Your task to perform on an android device: turn vacation reply on in the gmail app Image 0: 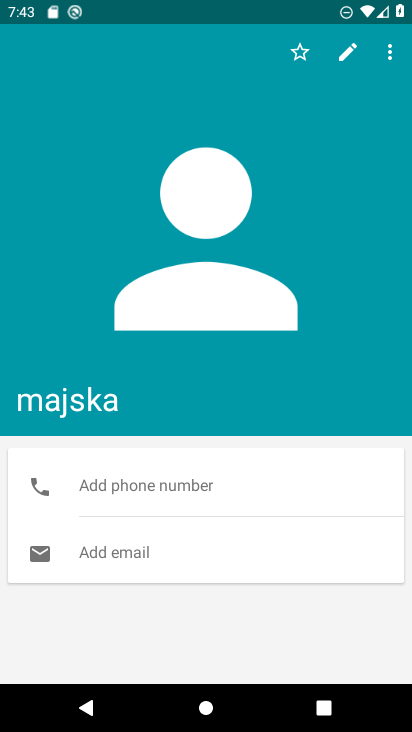
Step 0: drag from (154, 602) to (275, 222)
Your task to perform on an android device: turn vacation reply on in the gmail app Image 1: 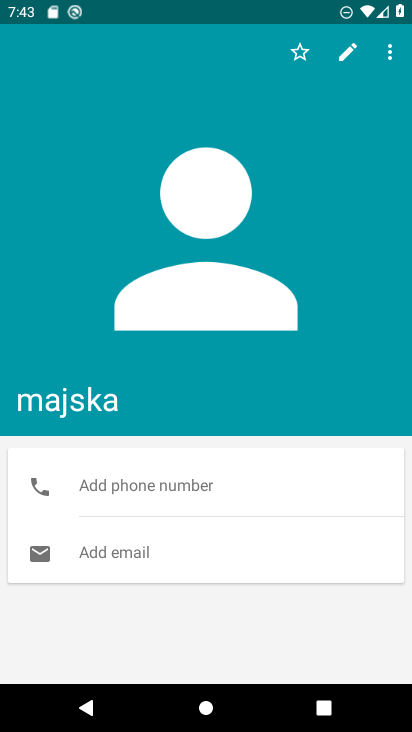
Step 1: press home button
Your task to perform on an android device: turn vacation reply on in the gmail app Image 2: 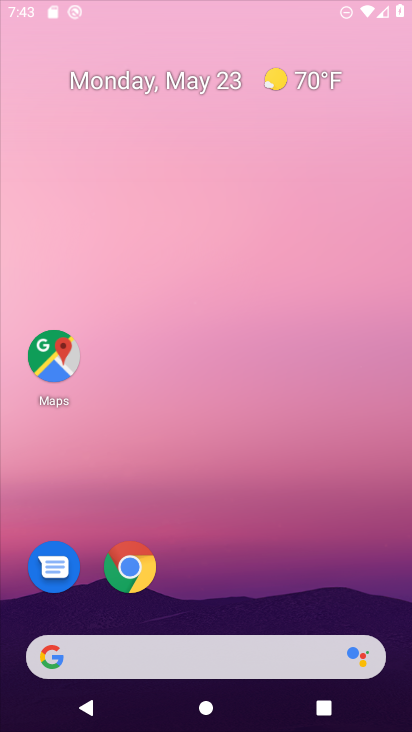
Step 2: drag from (181, 608) to (345, 0)
Your task to perform on an android device: turn vacation reply on in the gmail app Image 3: 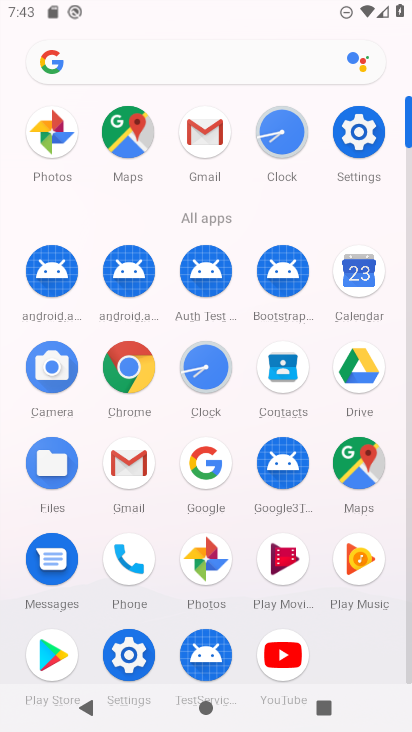
Step 3: click (122, 474)
Your task to perform on an android device: turn vacation reply on in the gmail app Image 4: 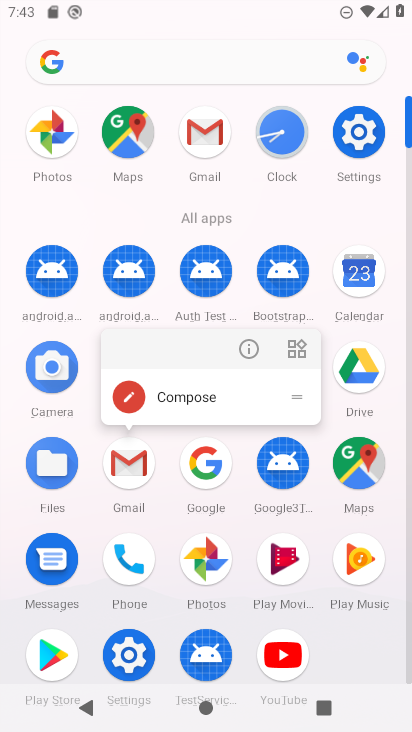
Step 4: click (244, 338)
Your task to perform on an android device: turn vacation reply on in the gmail app Image 5: 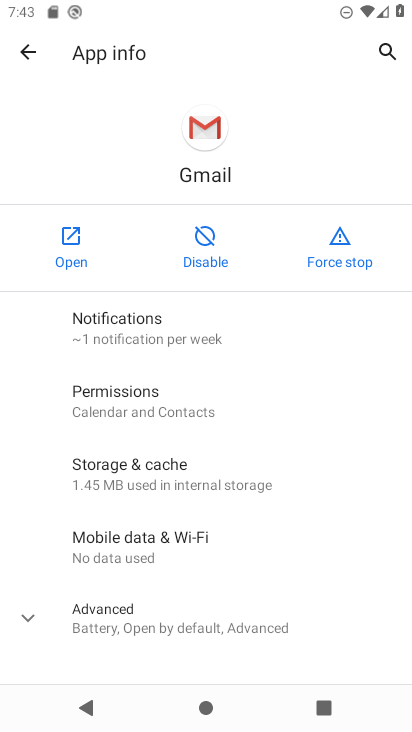
Step 5: click (62, 268)
Your task to perform on an android device: turn vacation reply on in the gmail app Image 6: 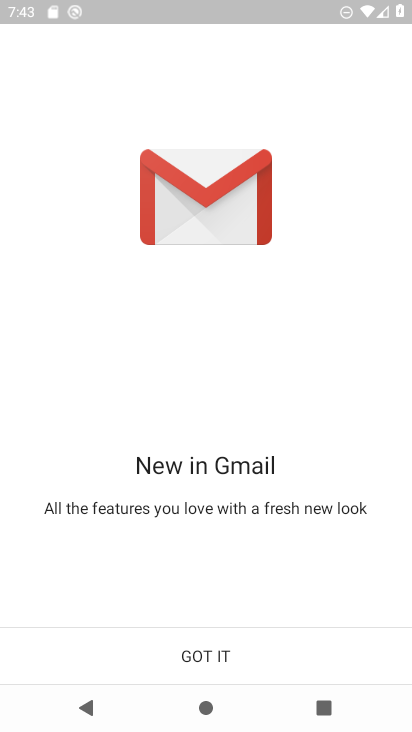
Step 6: click (192, 686)
Your task to perform on an android device: turn vacation reply on in the gmail app Image 7: 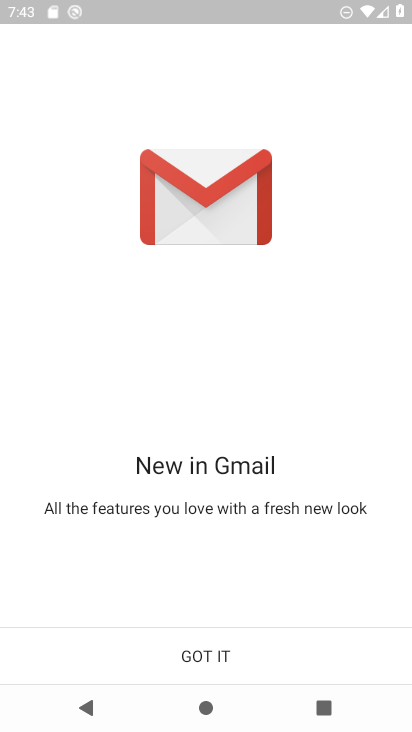
Step 7: click (215, 651)
Your task to perform on an android device: turn vacation reply on in the gmail app Image 8: 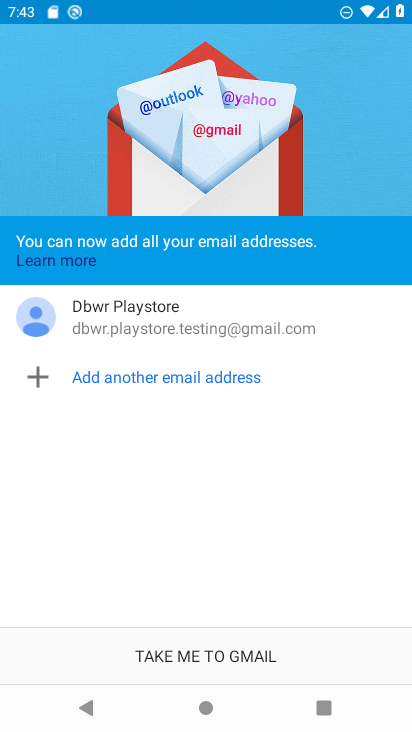
Step 8: click (159, 645)
Your task to perform on an android device: turn vacation reply on in the gmail app Image 9: 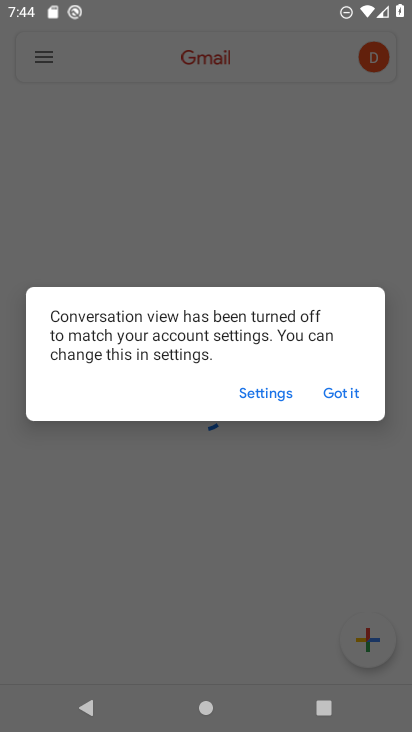
Step 9: click (344, 393)
Your task to perform on an android device: turn vacation reply on in the gmail app Image 10: 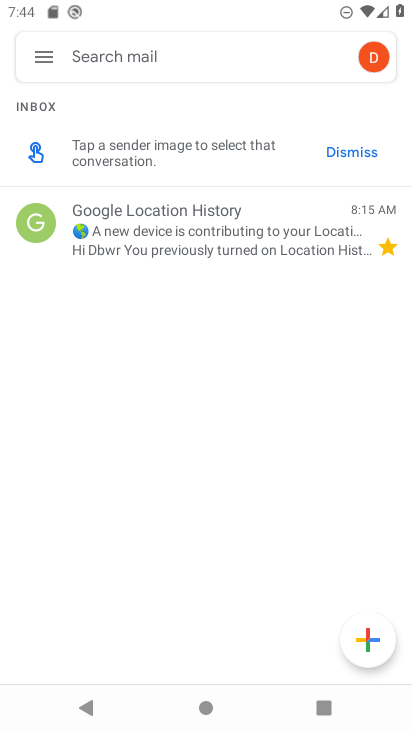
Step 10: click (44, 63)
Your task to perform on an android device: turn vacation reply on in the gmail app Image 11: 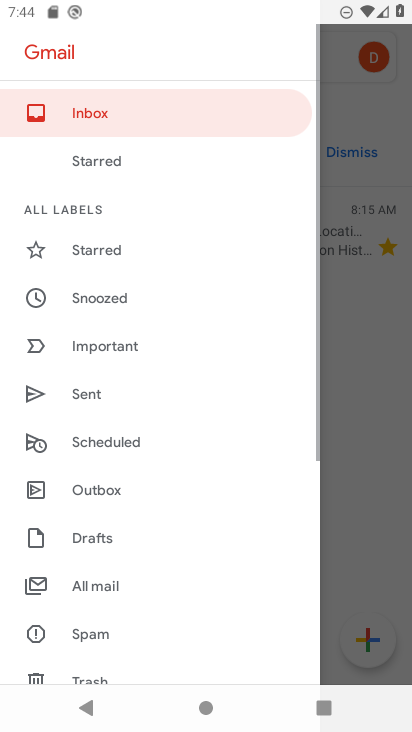
Step 11: drag from (146, 680) to (317, 84)
Your task to perform on an android device: turn vacation reply on in the gmail app Image 12: 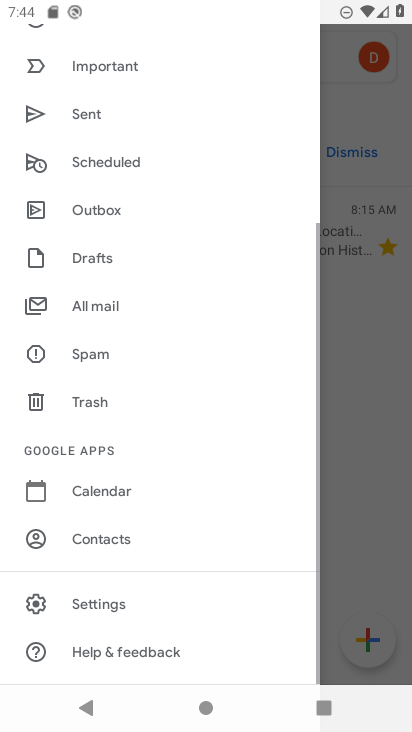
Step 12: click (115, 605)
Your task to perform on an android device: turn vacation reply on in the gmail app Image 13: 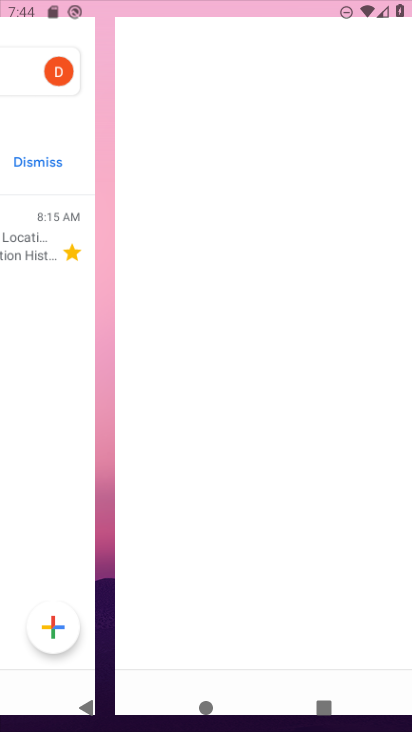
Step 13: drag from (138, 529) to (263, 9)
Your task to perform on an android device: turn vacation reply on in the gmail app Image 14: 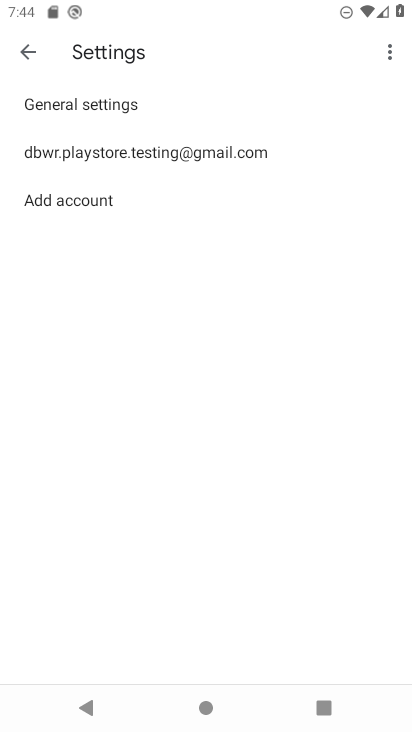
Step 14: click (129, 144)
Your task to perform on an android device: turn vacation reply on in the gmail app Image 15: 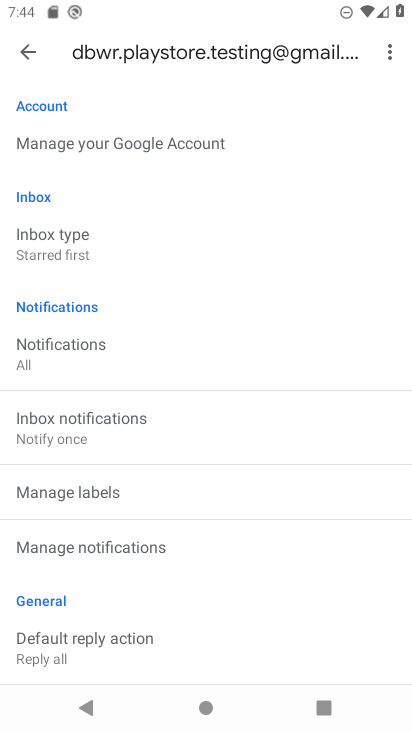
Step 15: click (72, 248)
Your task to perform on an android device: turn vacation reply on in the gmail app Image 16: 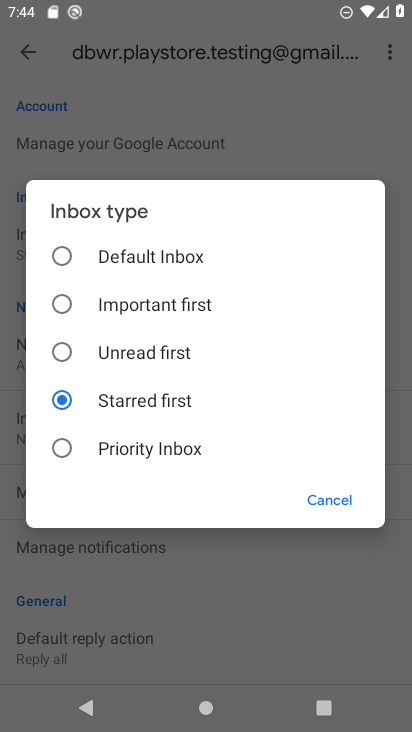
Step 16: click (317, 506)
Your task to perform on an android device: turn vacation reply on in the gmail app Image 17: 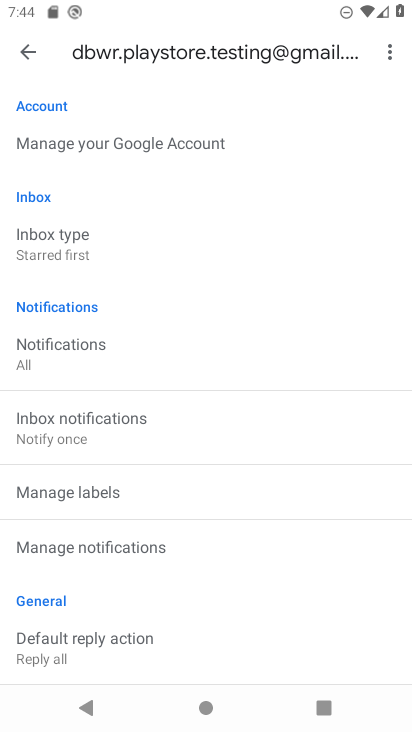
Step 17: drag from (133, 615) to (288, 131)
Your task to perform on an android device: turn vacation reply on in the gmail app Image 18: 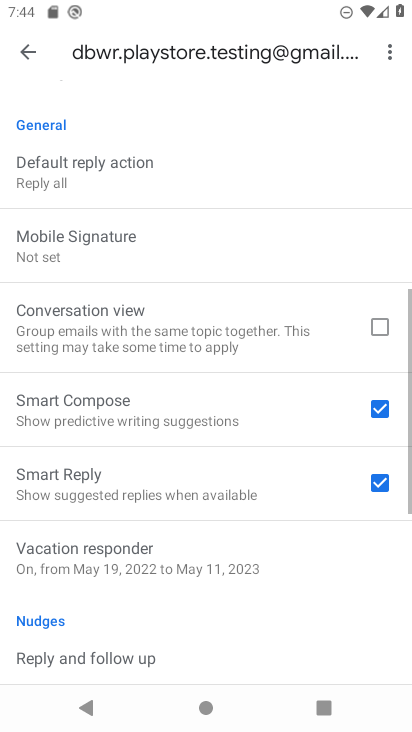
Step 18: click (110, 555)
Your task to perform on an android device: turn vacation reply on in the gmail app Image 19: 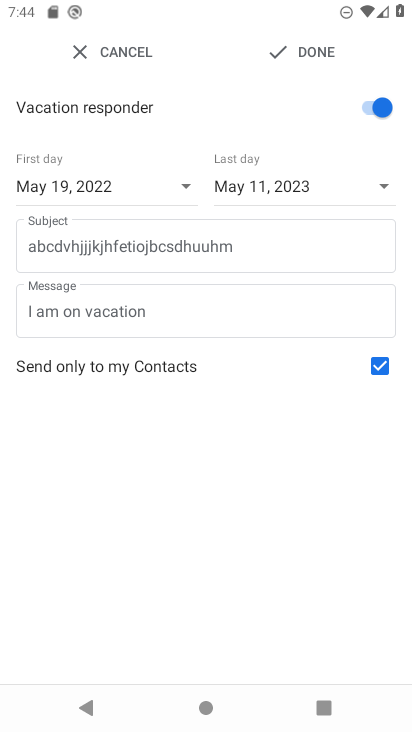
Step 19: click (287, 55)
Your task to perform on an android device: turn vacation reply on in the gmail app Image 20: 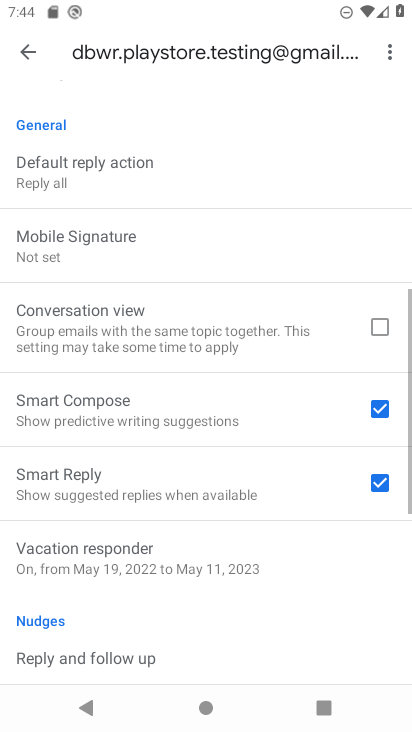
Step 20: task complete